Your task to perform on an android device: set the stopwatch Image 0: 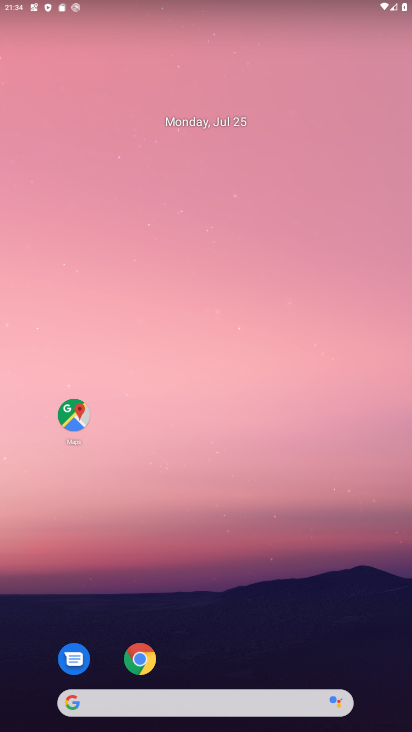
Step 0: drag from (207, 654) to (217, 171)
Your task to perform on an android device: set the stopwatch Image 1: 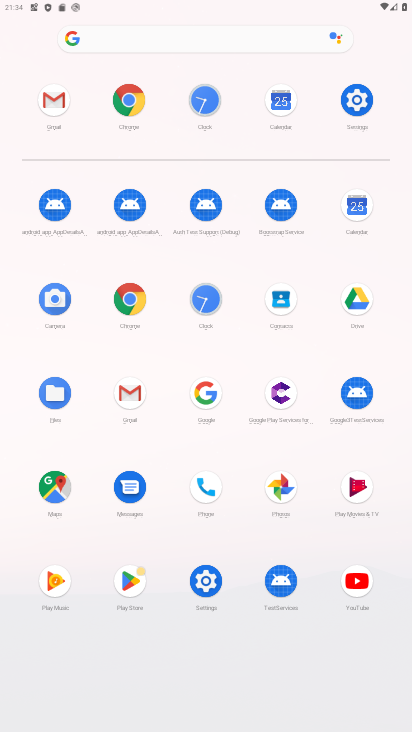
Step 1: click (212, 102)
Your task to perform on an android device: set the stopwatch Image 2: 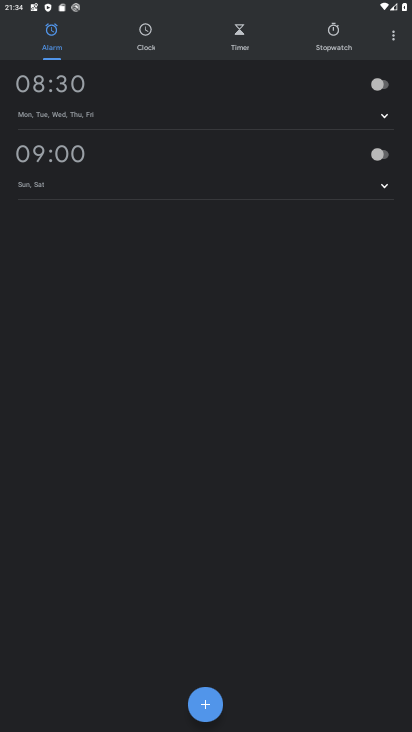
Step 2: click (324, 27)
Your task to perform on an android device: set the stopwatch Image 3: 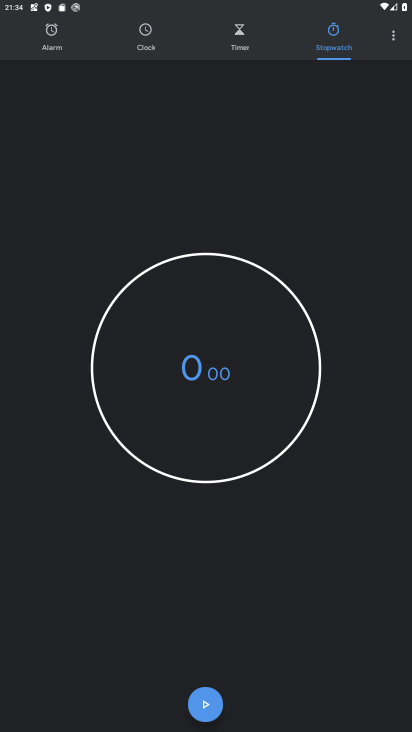
Step 3: click (199, 718)
Your task to perform on an android device: set the stopwatch Image 4: 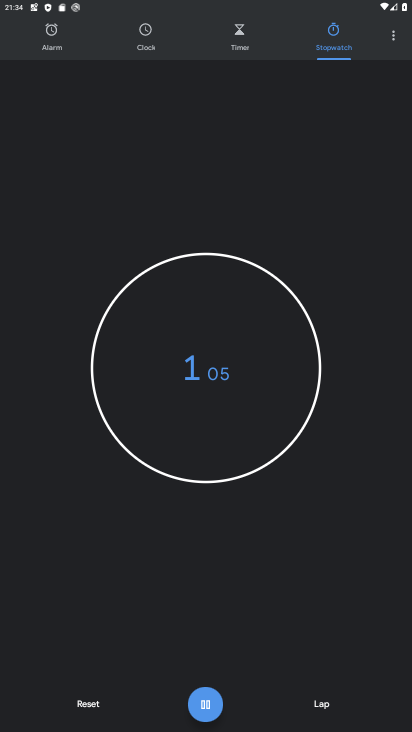
Step 4: task complete